Your task to perform on an android device: turn notification dots on Image 0: 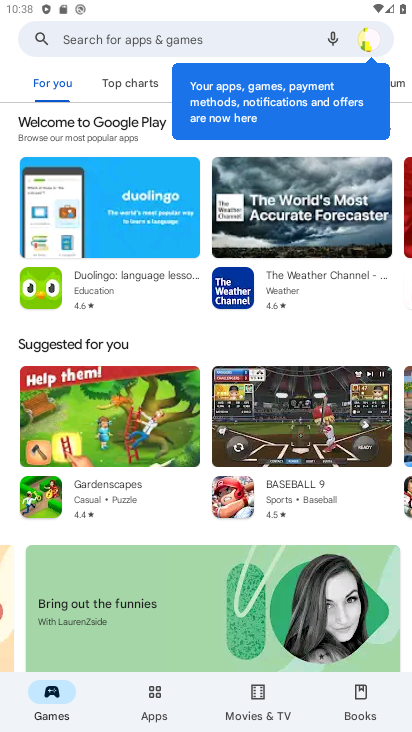
Step 0: press home button
Your task to perform on an android device: turn notification dots on Image 1: 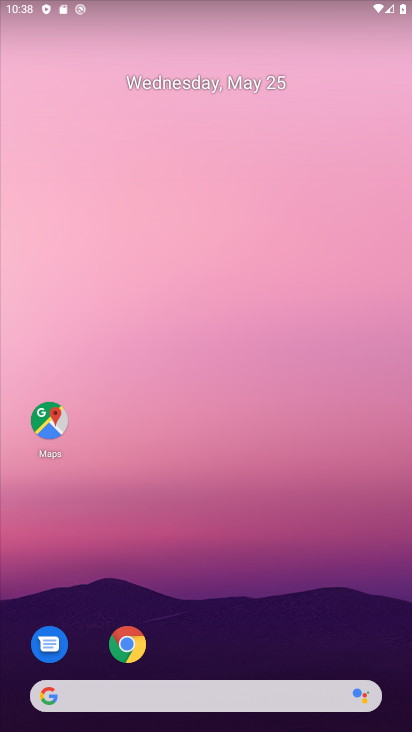
Step 1: drag from (181, 647) to (253, 174)
Your task to perform on an android device: turn notification dots on Image 2: 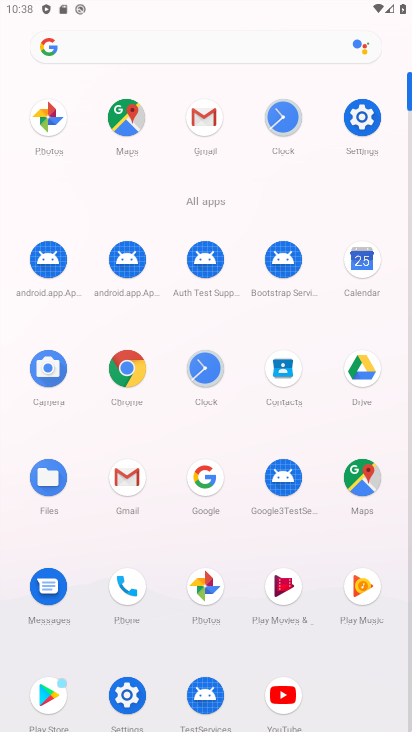
Step 2: drag from (205, 641) to (261, 434)
Your task to perform on an android device: turn notification dots on Image 3: 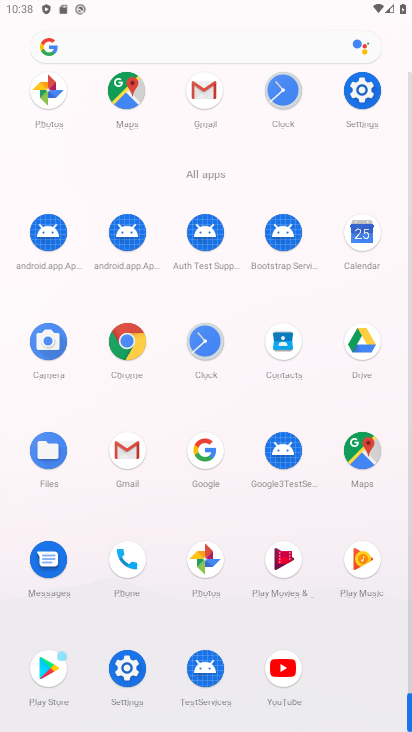
Step 3: click (135, 675)
Your task to perform on an android device: turn notification dots on Image 4: 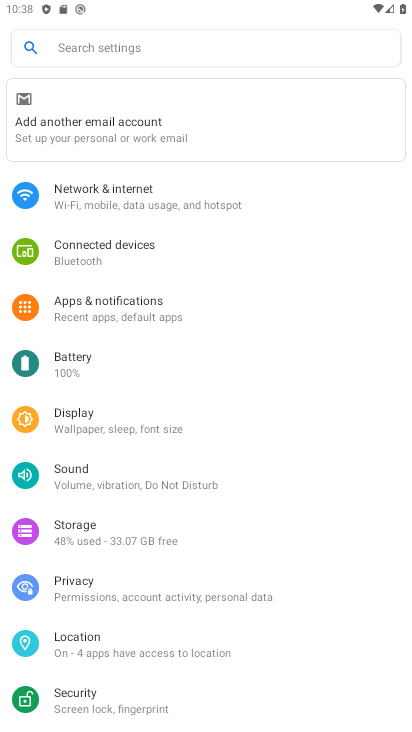
Step 4: click (164, 303)
Your task to perform on an android device: turn notification dots on Image 5: 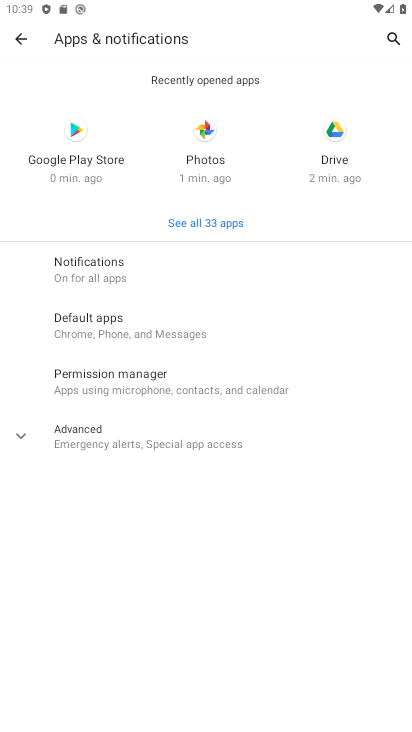
Step 5: click (173, 279)
Your task to perform on an android device: turn notification dots on Image 6: 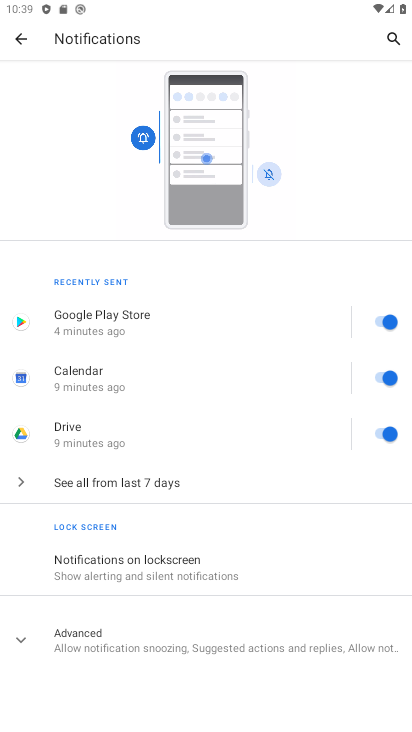
Step 6: click (187, 646)
Your task to perform on an android device: turn notification dots on Image 7: 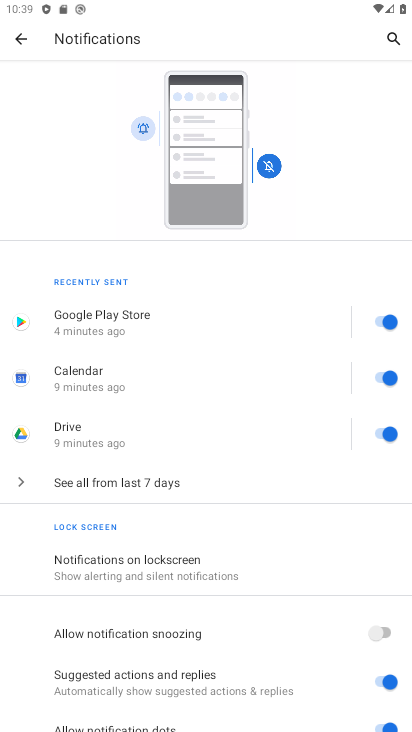
Step 7: task complete